Your task to perform on an android device: open chrome and create a bookmark for the current page Image 0: 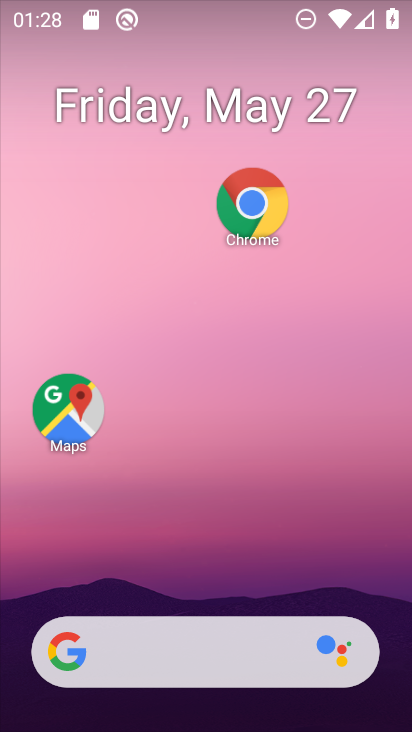
Step 0: drag from (202, 555) to (206, 106)
Your task to perform on an android device: open chrome and create a bookmark for the current page Image 1: 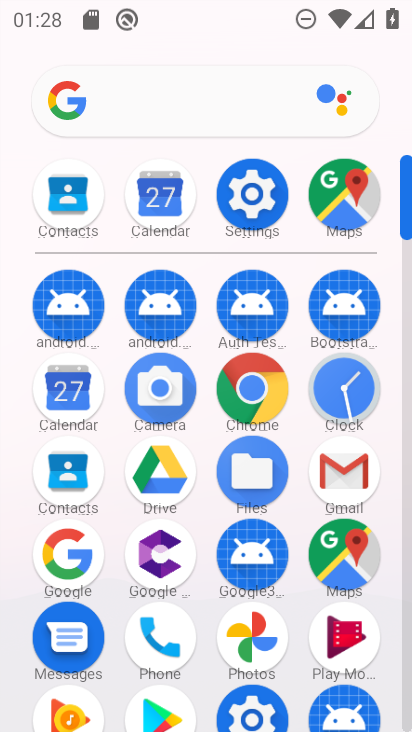
Step 1: click (243, 186)
Your task to perform on an android device: open chrome and create a bookmark for the current page Image 2: 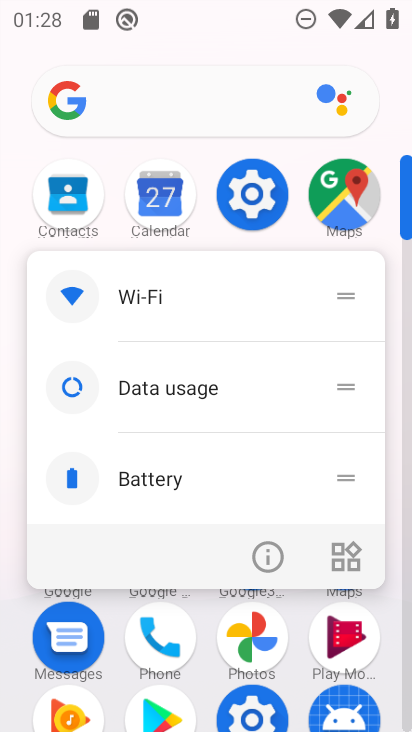
Step 2: click (5, 41)
Your task to perform on an android device: open chrome and create a bookmark for the current page Image 3: 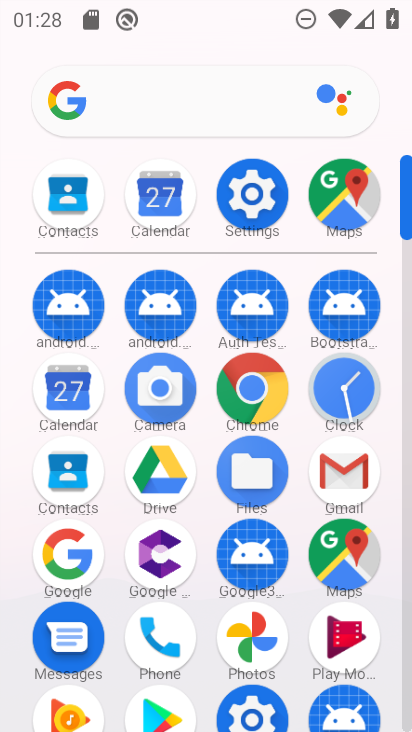
Step 3: click (246, 392)
Your task to perform on an android device: open chrome and create a bookmark for the current page Image 4: 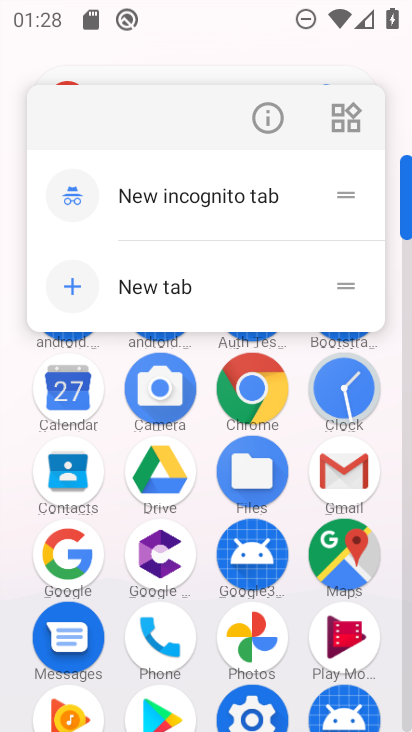
Step 4: click (259, 103)
Your task to perform on an android device: open chrome and create a bookmark for the current page Image 5: 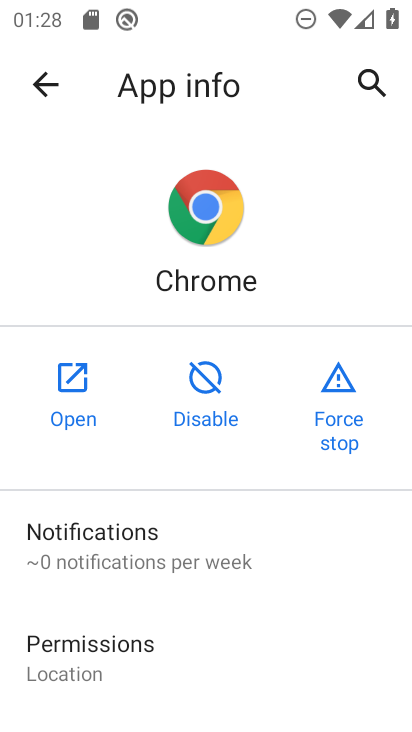
Step 5: click (70, 389)
Your task to perform on an android device: open chrome and create a bookmark for the current page Image 6: 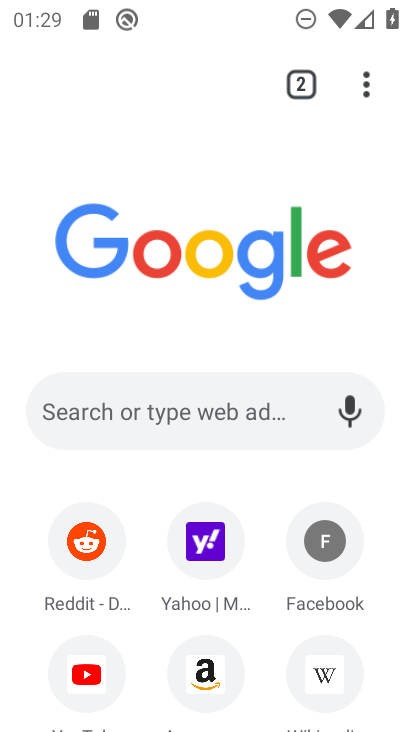
Step 6: drag from (274, 622) to (290, 229)
Your task to perform on an android device: open chrome and create a bookmark for the current page Image 7: 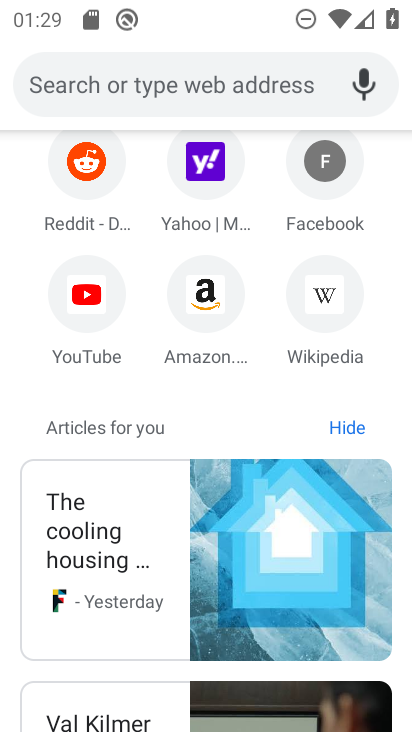
Step 7: drag from (262, 181) to (264, 629)
Your task to perform on an android device: open chrome and create a bookmark for the current page Image 8: 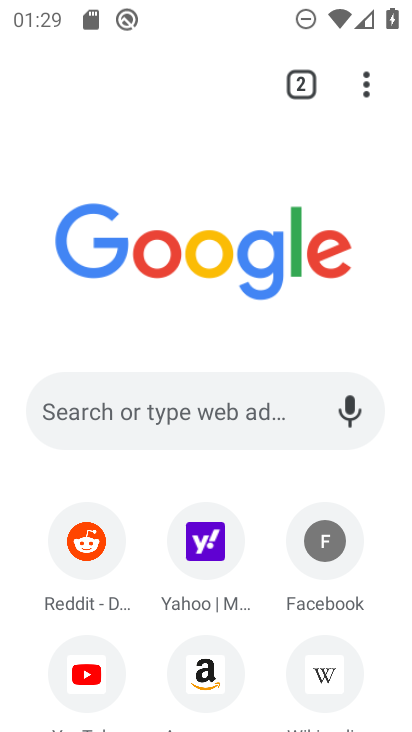
Step 8: drag from (365, 78) to (138, 91)
Your task to perform on an android device: open chrome and create a bookmark for the current page Image 9: 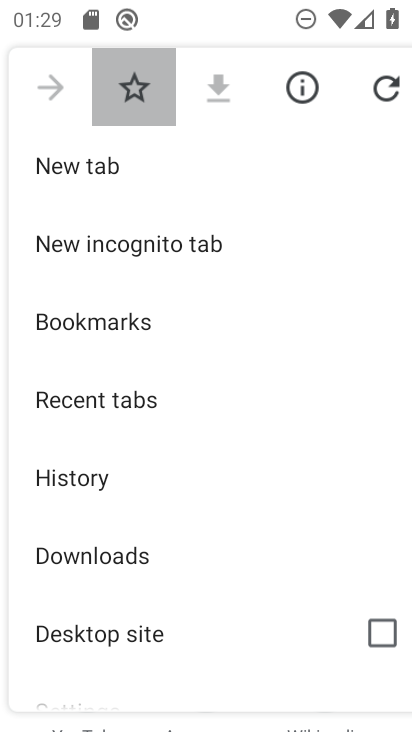
Step 9: click (138, 91)
Your task to perform on an android device: open chrome and create a bookmark for the current page Image 10: 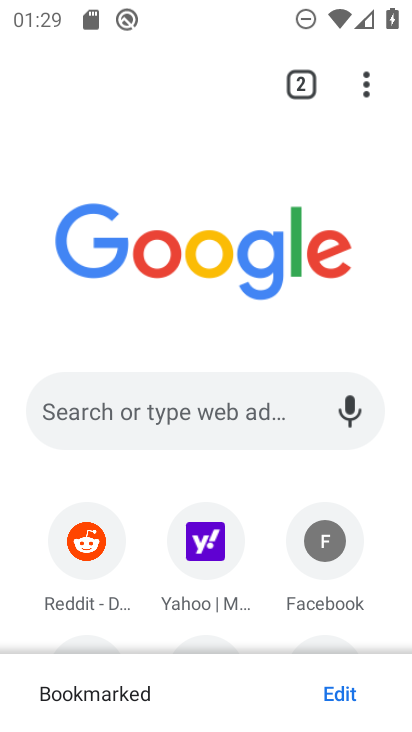
Step 10: task complete